Your task to perform on an android device: change the clock style Image 0: 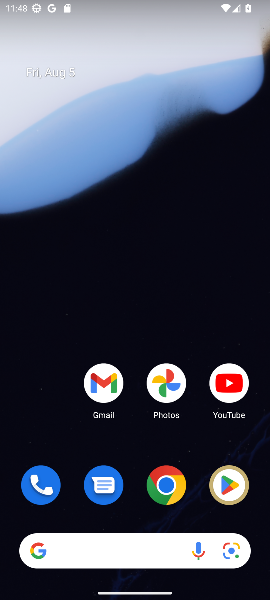
Step 0: drag from (59, 418) to (51, 44)
Your task to perform on an android device: change the clock style Image 1: 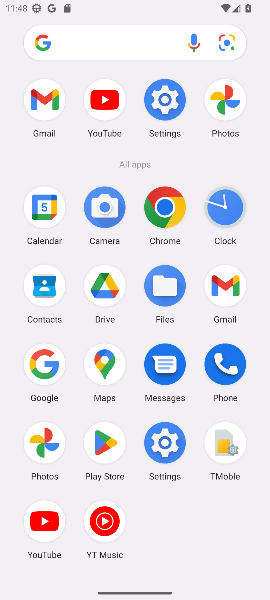
Step 1: click (220, 200)
Your task to perform on an android device: change the clock style Image 2: 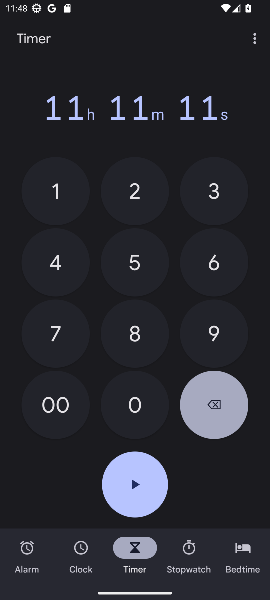
Step 2: click (257, 41)
Your task to perform on an android device: change the clock style Image 3: 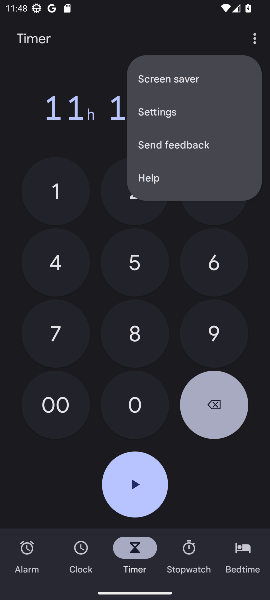
Step 3: click (168, 109)
Your task to perform on an android device: change the clock style Image 4: 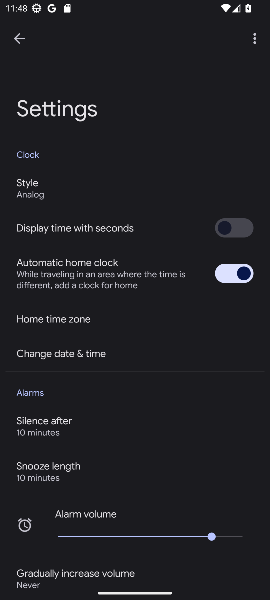
Step 4: click (36, 187)
Your task to perform on an android device: change the clock style Image 5: 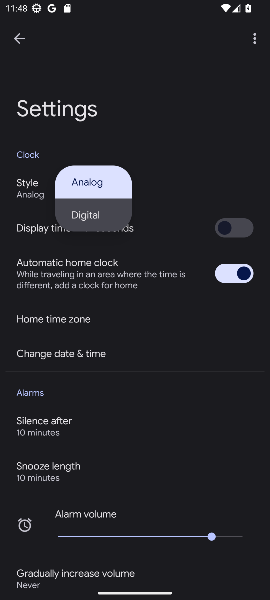
Step 5: click (81, 212)
Your task to perform on an android device: change the clock style Image 6: 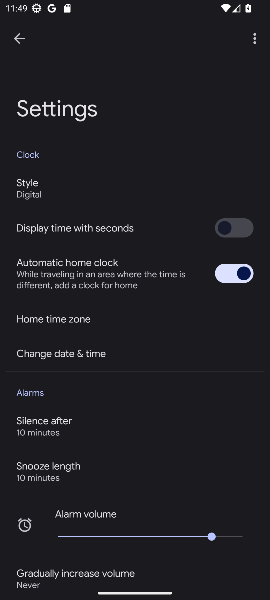
Step 6: task complete